Your task to perform on an android device: Is it going to rain today? Image 0: 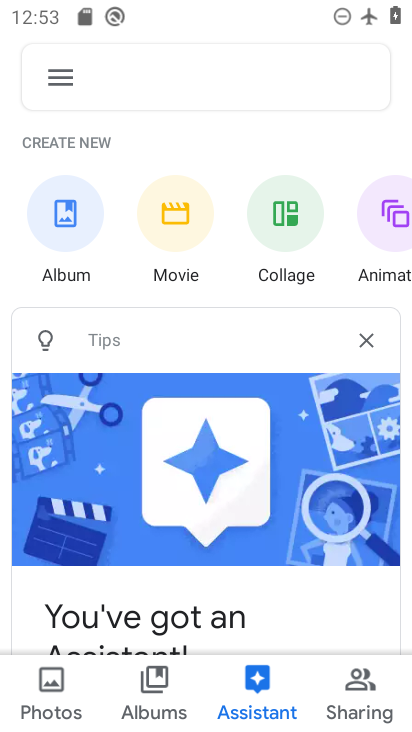
Step 0: press home button
Your task to perform on an android device: Is it going to rain today? Image 1: 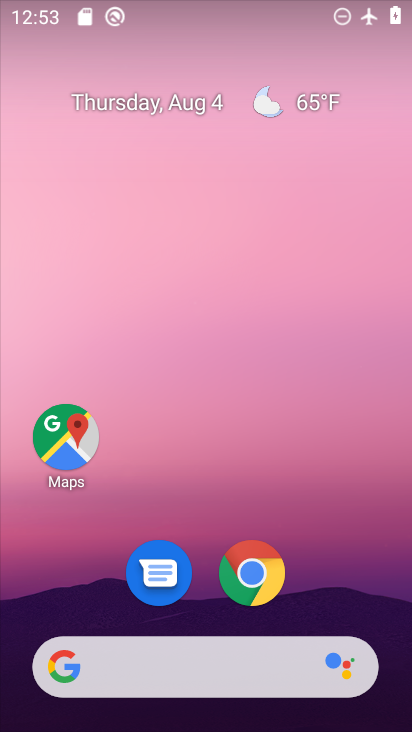
Step 1: drag from (359, 537) to (322, 43)
Your task to perform on an android device: Is it going to rain today? Image 2: 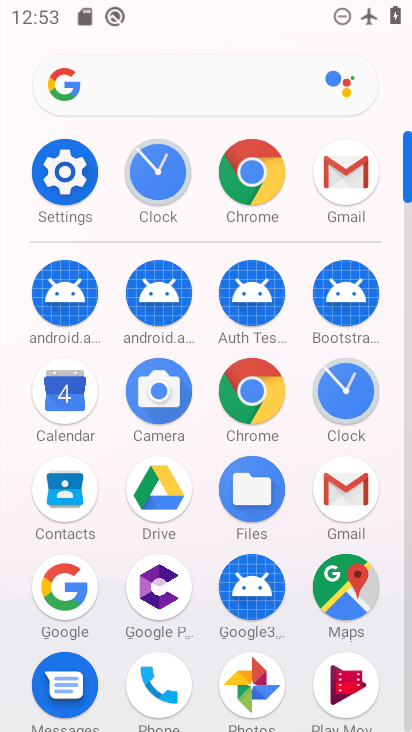
Step 2: press home button
Your task to perform on an android device: Is it going to rain today? Image 3: 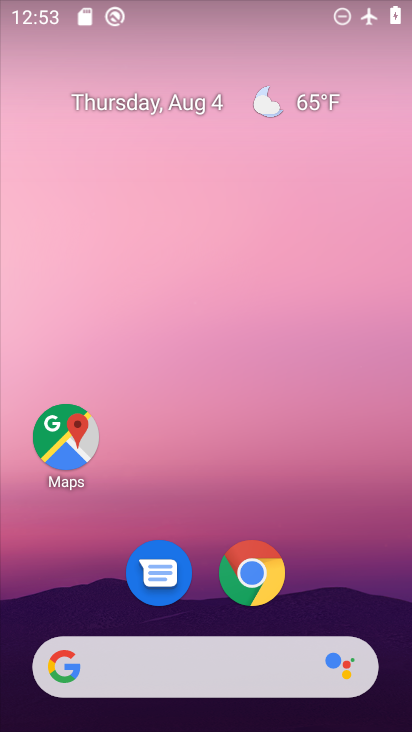
Step 3: click (304, 97)
Your task to perform on an android device: Is it going to rain today? Image 4: 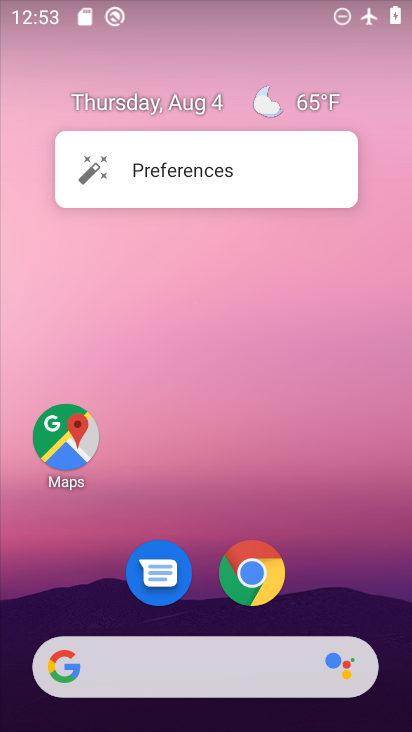
Step 4: click (316, 101)
Your task to perform on an android device: Is it going to rain today? Image 5: 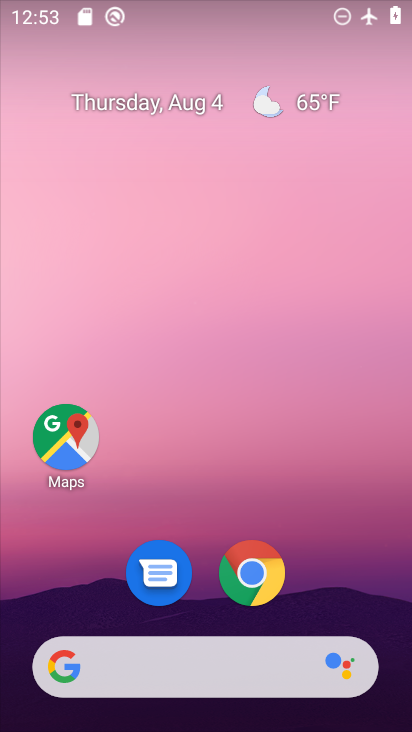
Step 5: click (316, 101)
Your task to perform on an android device: Is it going to rain today? Image 6: 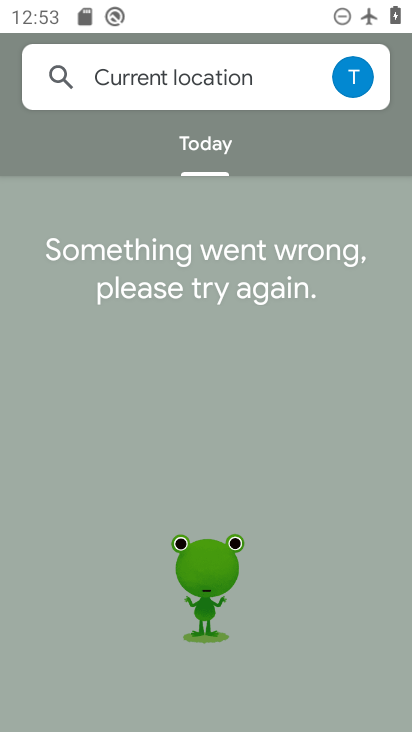
Step 6: task complete